Your task to perform on an android device: change notifications settings Image 0: 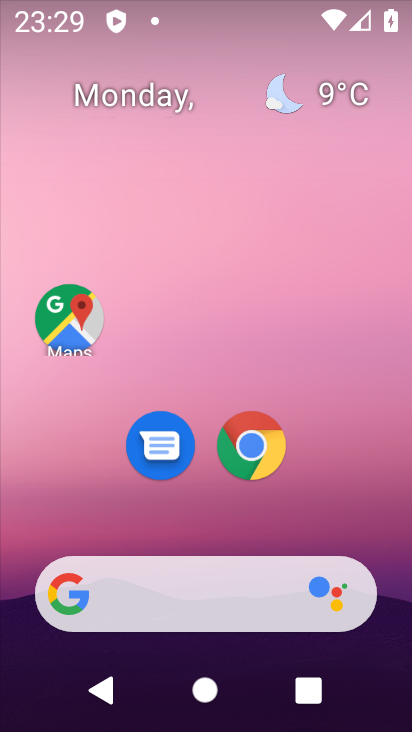
Step 0: drag from (358, 561) to (372, 3)
Your task to perform on an android device: change notifications settings Image 1: 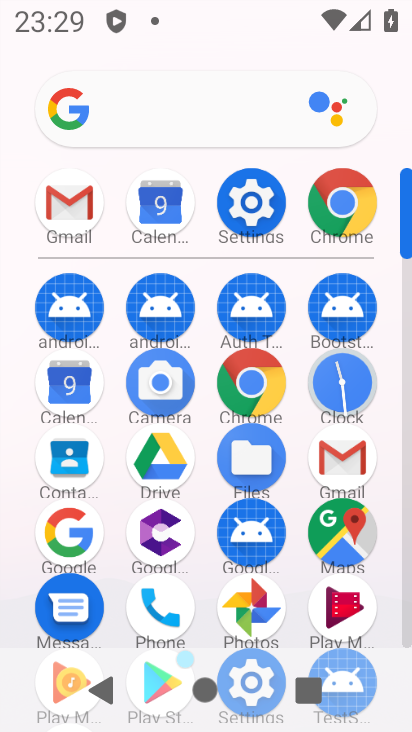
Step 1: click (274, 202)
Your task to perform on an android device: change notifications settings Image 2: 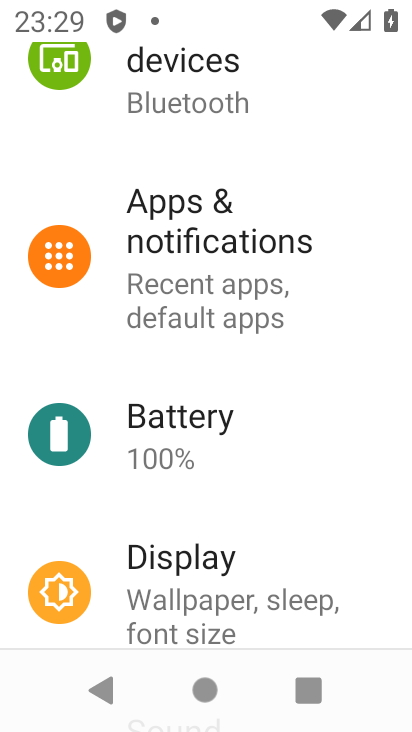
Step 2: click (268, 272)
Your task to perform on an android device: change notifications settings Image 3: 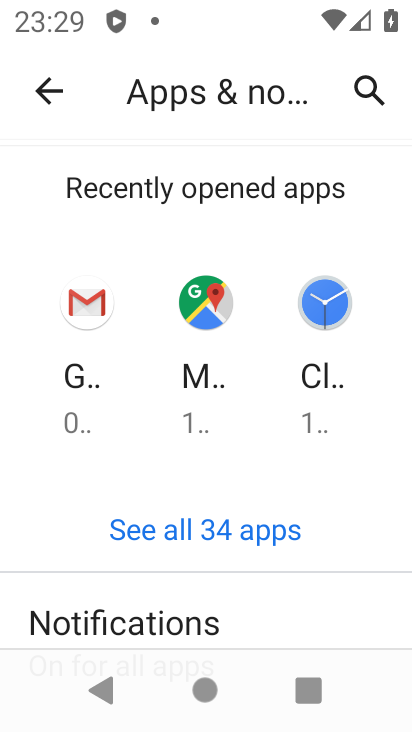
Step 3: drag from (255, 647) to (289, 281)
Your task to perform on an android device: change notifications settings Image 4: 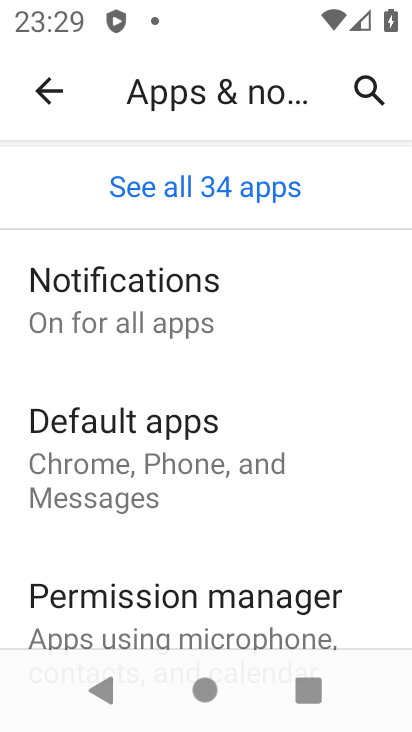
Step 4: click (258, 299)
Your task to perform on an android device: change notifications settings Image 5: 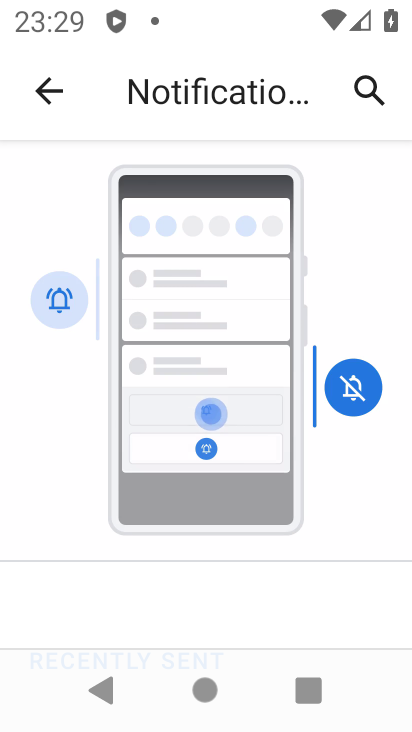
Step 5: drag from (237, 622) to (307, 139)
Your task to perform on an android device: change notifications settings Image 6: 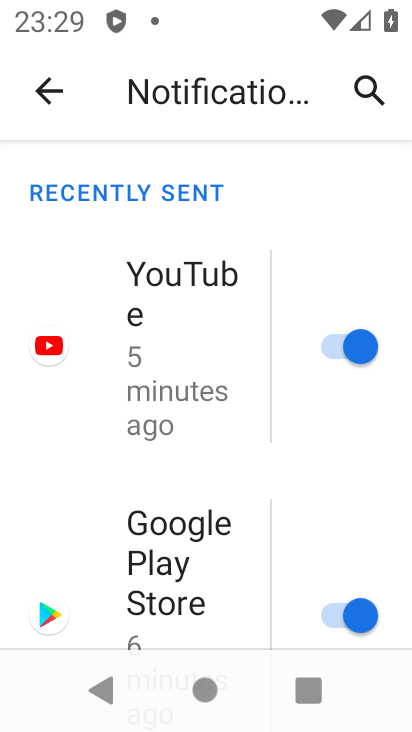
Step 6: drag from (245, 526) to (268, 117)
Your task to perform on an android device: change notifications settings Image 7: 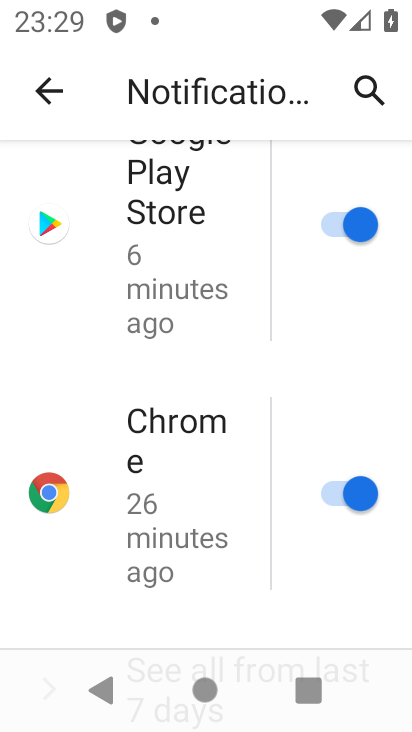
Step 7: drag from (215, 659) to (296, 270)
Your task to perform on an android device: change notifications settings Image 8: 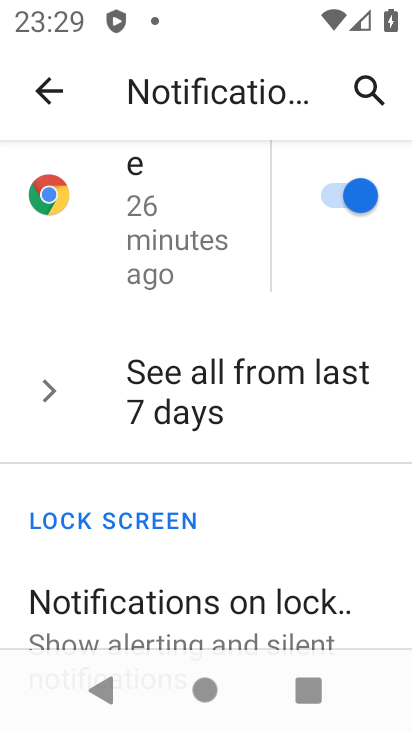
Step 8: drag from (288, 242) to (288, 655)
Your task to perform on an android device: change notifications settings Image 9: 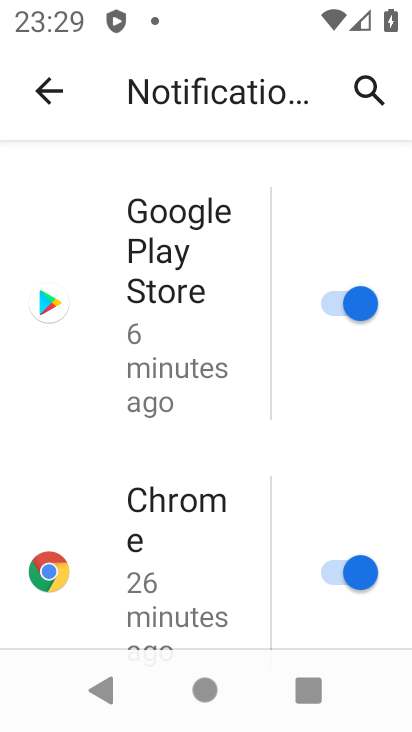
Step 9: drag from (244, 404) to (205, 705)
Your task to perform on an android device: change notifications settings Image 10: 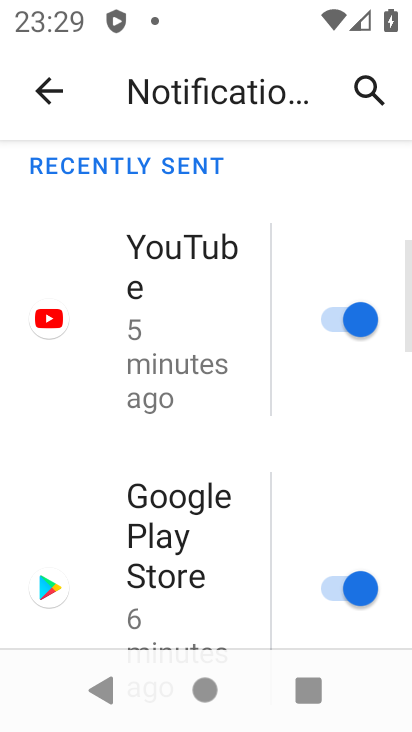
Step 10: drag from (249, 240) to (255, 610)
Your task to perform on an android device: change notifications settings Image 11: 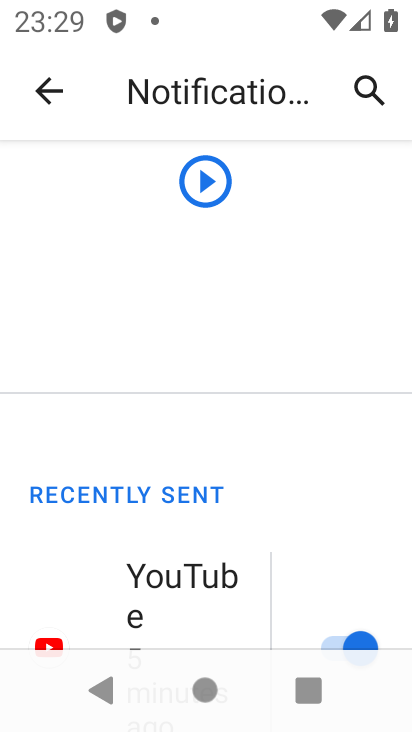
Step 11: drag from (264, 291) to (280, 685)
Your task to perform on an android device: change notifications settings Image 12: 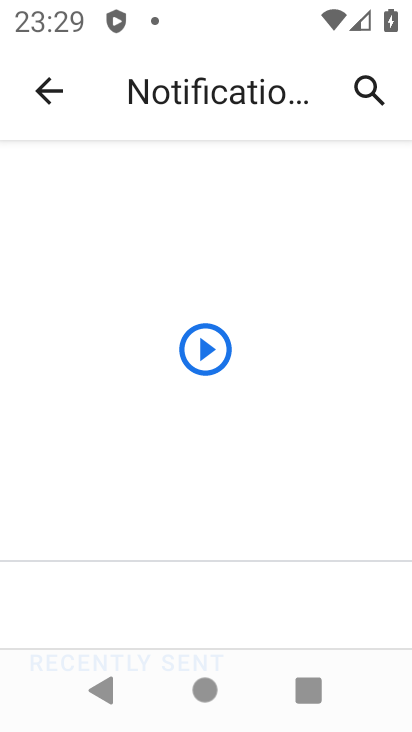
Step 12: drag from (244, 616) to (248, 225)
Your task to perform on an android device: change notifications settings Image 13: 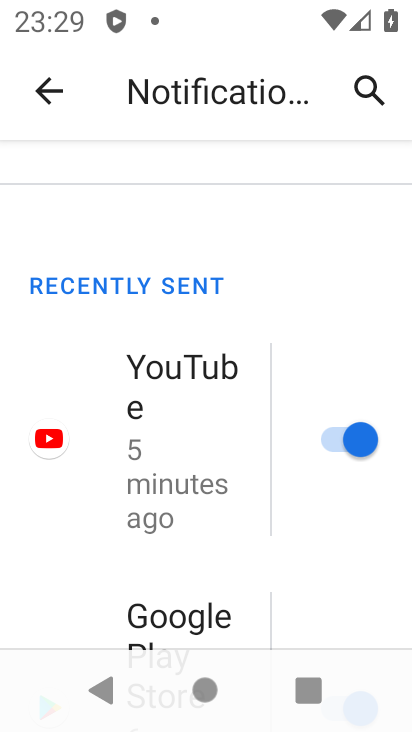
Step 13: click (338, 442)
Your task to perform on an android device: change notifications settings Image 14: 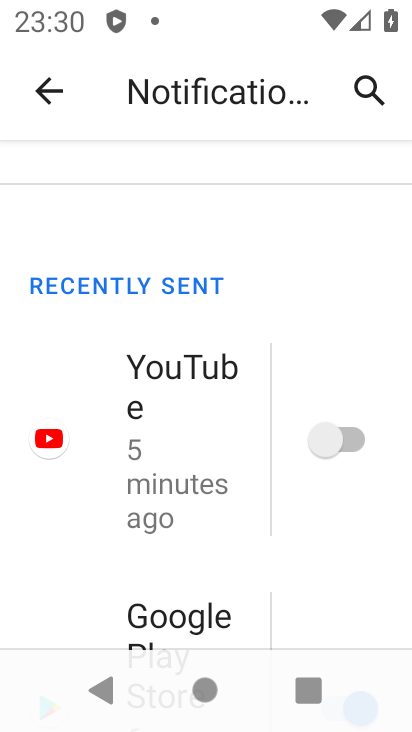
Step 14: drag from (289, 582) to (274, 308)
Your task to perform on an android device: change notifications settings Image 15: 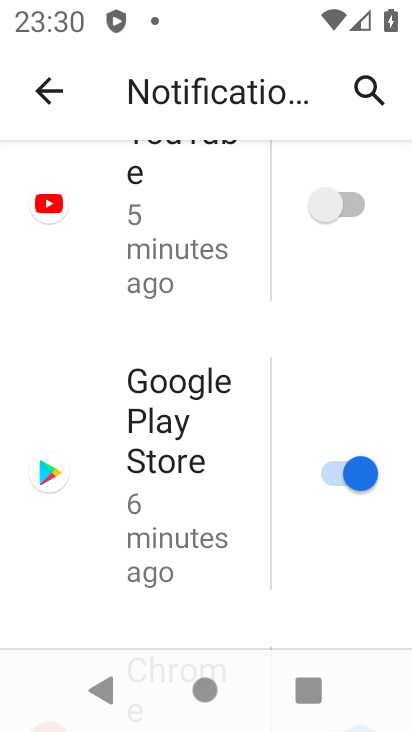
Step 15: click (327, 459)
Your task to perform on an android device: change notifications settings Image 16: 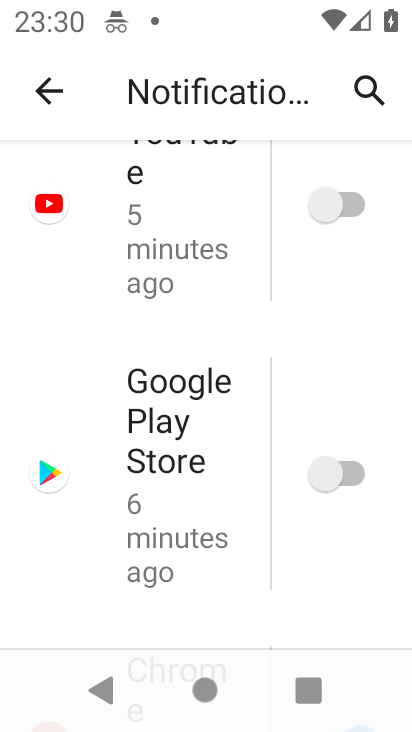
Step 16: drag from (259, 571) to (265, 134)
Your task to perform on an android device: change notifications settings Image 17: 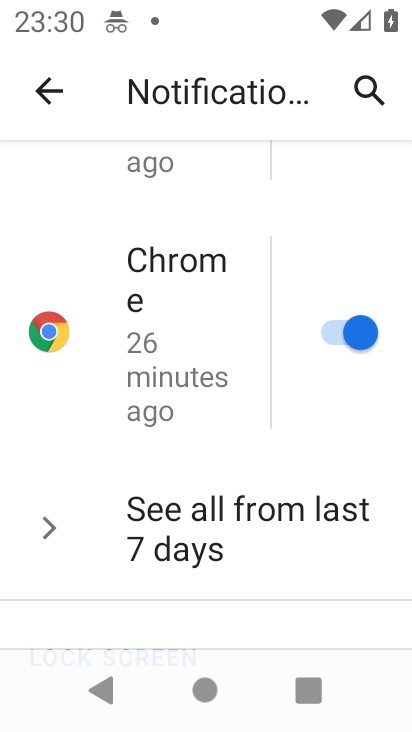
Step 17: click (323, 332)
Your task to perform on an android device: change notifications settings Image 18: 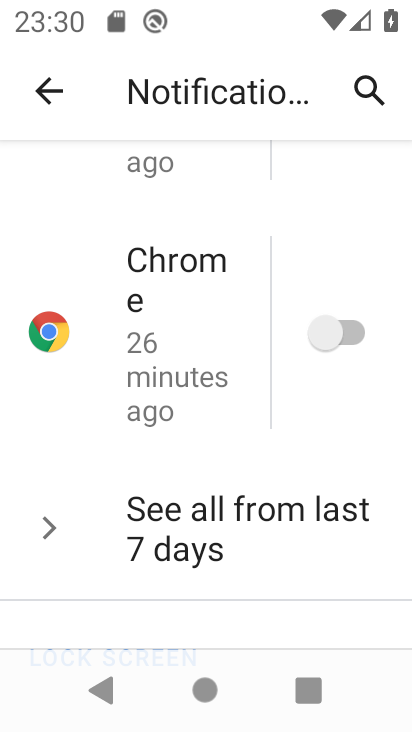
Step 18: task complete